Your task to perform on an android device: What is the news today? Image 0: 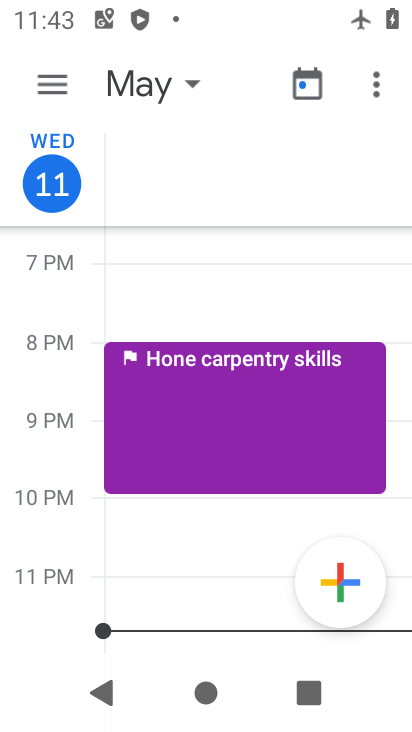
Step 0: drag from (213, 507) to (270, 84)
Your task to perform on an android device: What is the news today? Image 1: 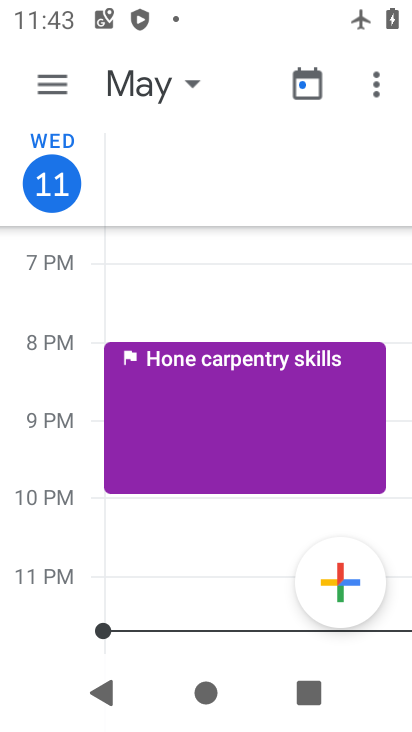
Step 1: press home button
Your task to perform on an android device: What is the news today? Image 2: 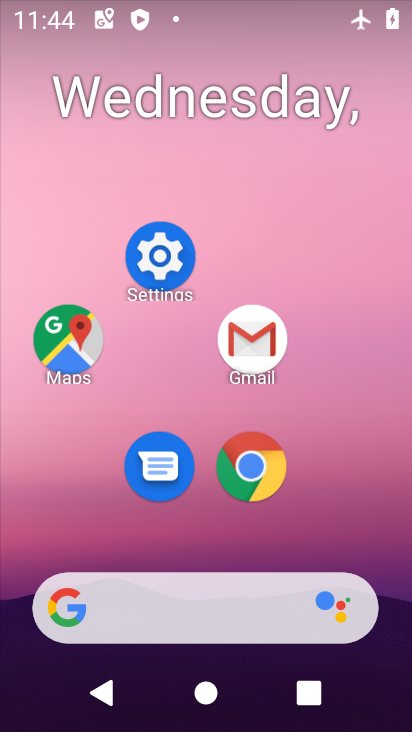
Step 2: drag from (167, 551) to (205, 247)
Your task to perform on an android device: What is the news today? Image 3: 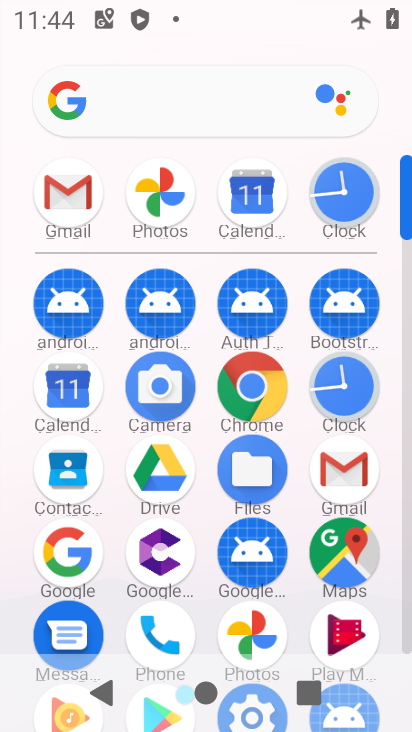
Step 3: click (176, 122)
Your task to perform on an android device: What is the news today? Image 4: 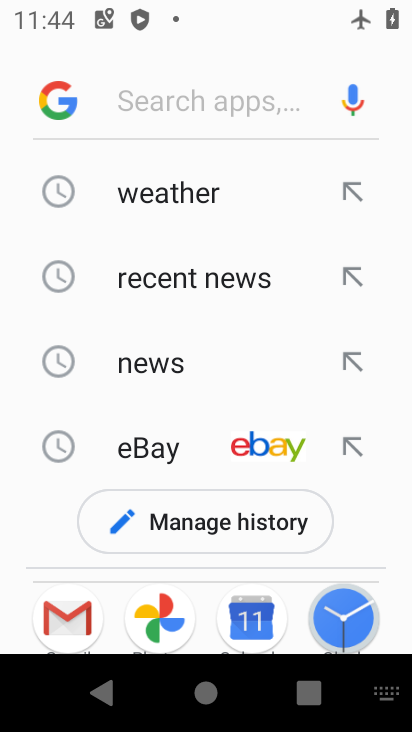
Step 4: click (166, 383)
Your task to perform on an android device: What is the news today? Image 5: 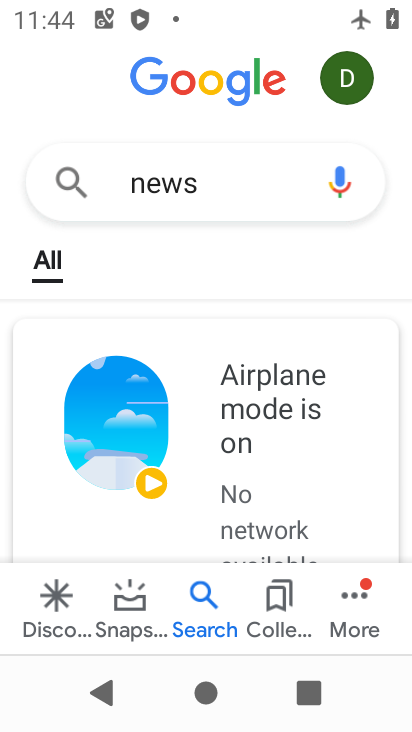
Step 5: drag from (242, 481) to (224, 59)
Your task to perform on an android device: What is the news today? Image 6: 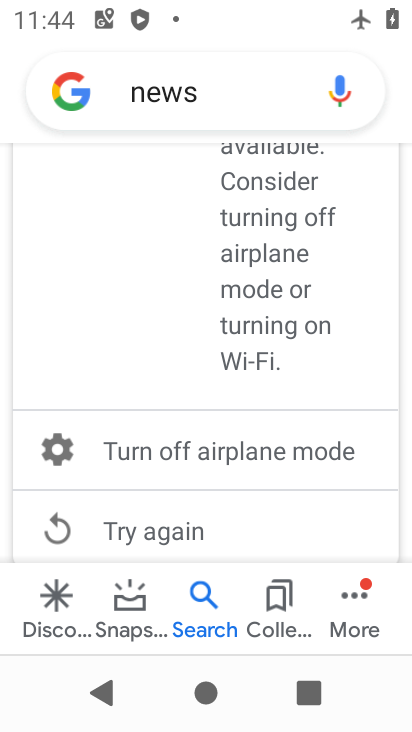
Step 6: drag from (236, 437) to (248, 116)
Your task to perform on an android device: What is the news today? Image 7: 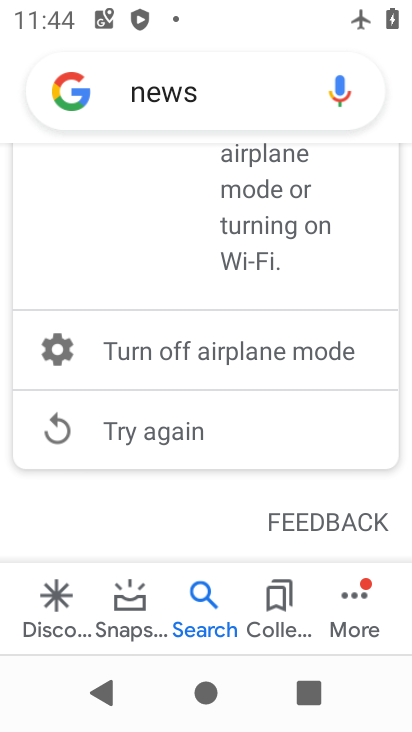
Step 7: drag from (155, 289) to (276, 719)
Your task to perform on an android device: What is the news today? Image 8: 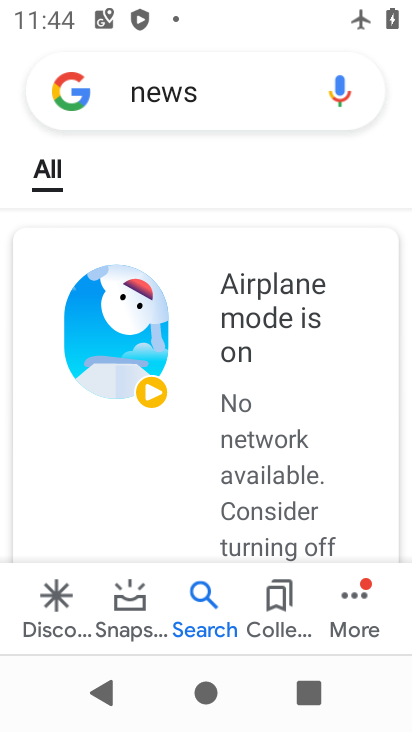
Step 8: drag from (226, 291) to (377, 661)
Your task to perform on an android device: What is the news today? Image 9: 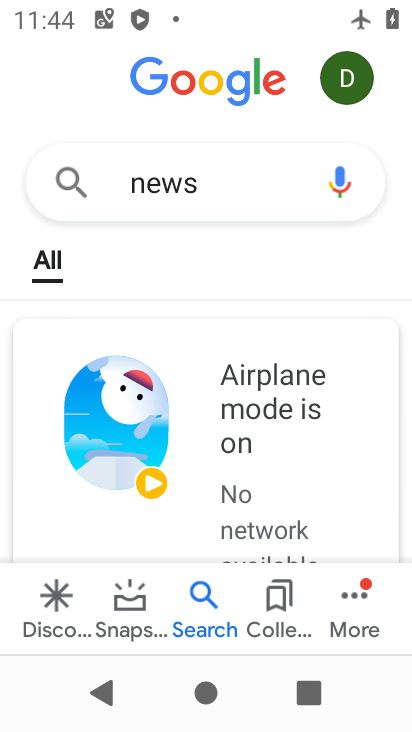
Step 9: click (258, 187)
Your task to perform on an android device: What is the news today? Image 10: 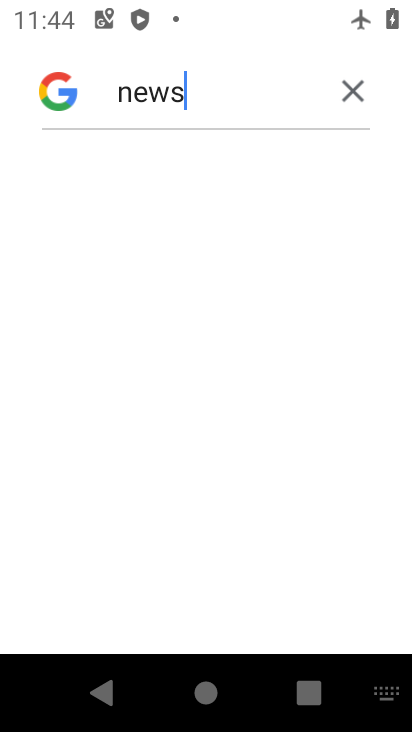
Step 10: type " today"
Your task to perform on an android device: What is the news today? Image 11: 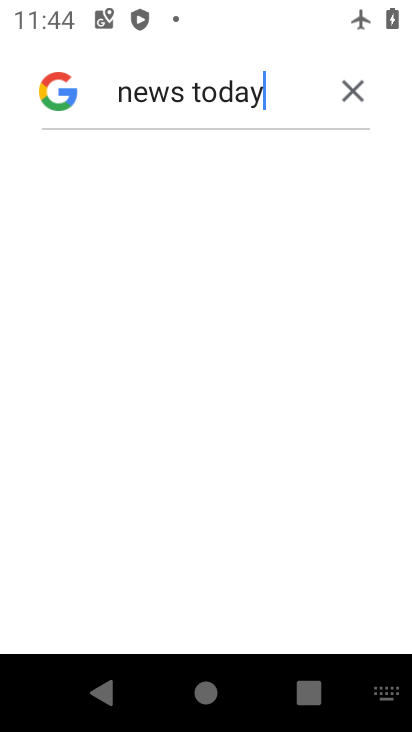
Step 11: task complete